Your task to perform on an android device: all mails in gmail Image 0: 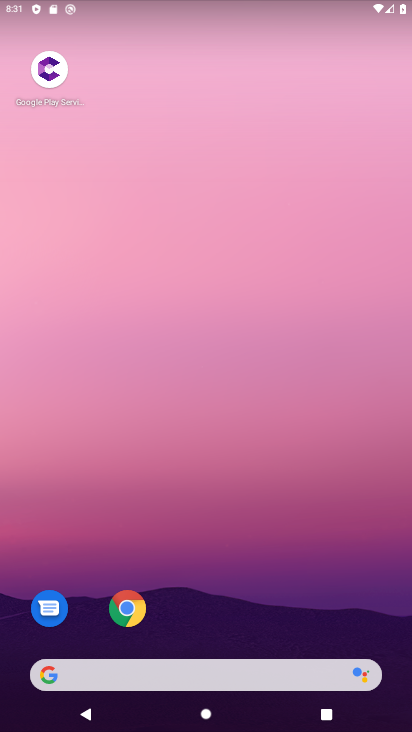
Step 0: drag from (238, 631) to (409, 55)
Your task to perform on an android device: all mails in gmail Image 1: 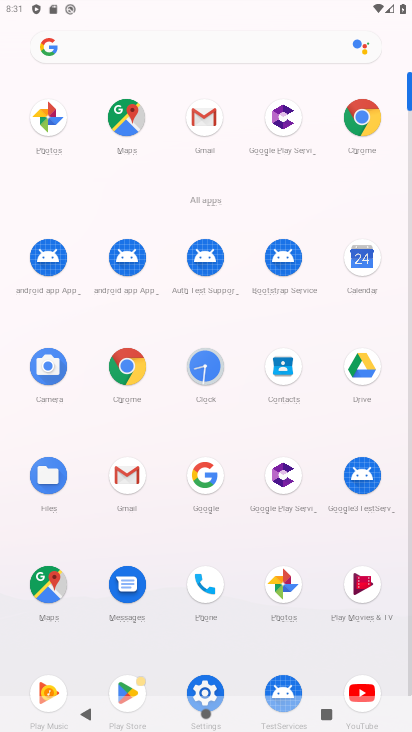
Step 1: click (135, 500)
Your task to perform on an android device: all mails in gmail Image 2: 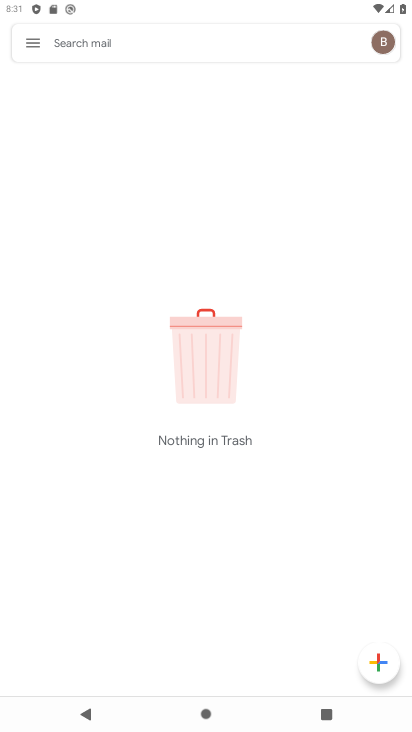
Step 2: click (36, 49)
Your task to perform on an android device: all mails in gmail Image 3: 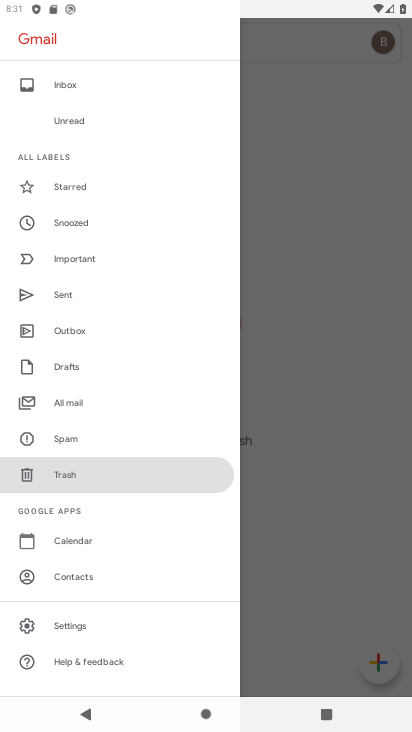
Step 3: drag from (79, 96) to (120, 214)
Your task to perform on an android device: all mails in gmail Image 4: 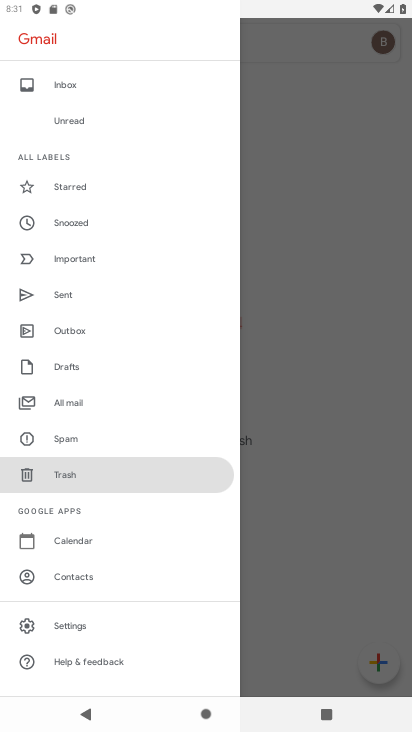
Step 4: click (76, 402)
Your task to perform on an android device: all mails in gmail Image 5: 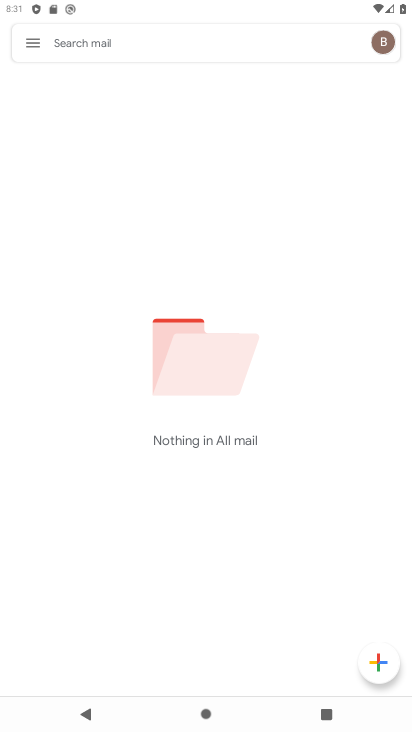
Step 5: task complete